Your task to perform on an android device: see creations saved in the google photos Image 0: 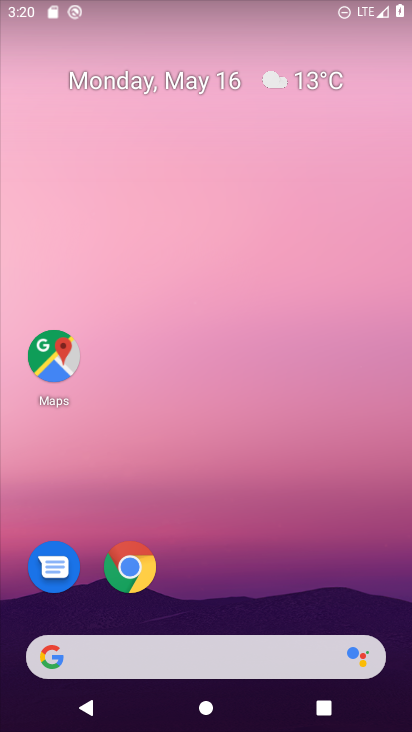
Step 0: drag from (295, 607) to (227, 12)
Your task to perform on an android device: see creations saved in the google photos Image 1: 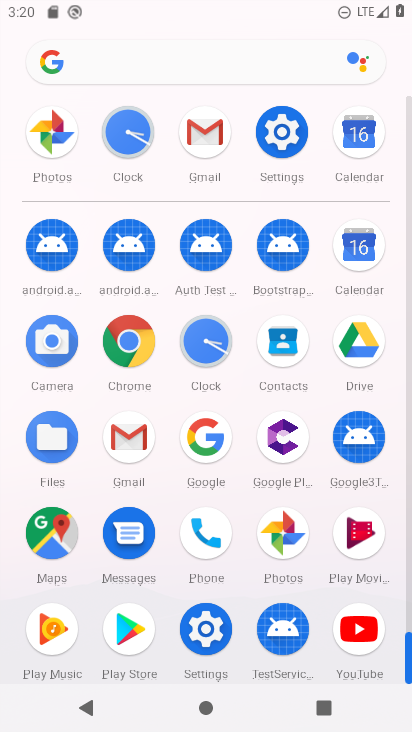
Step 1: click (34, 139)
Your task to perform on an android device: see creations saved in the google photos Image 2: 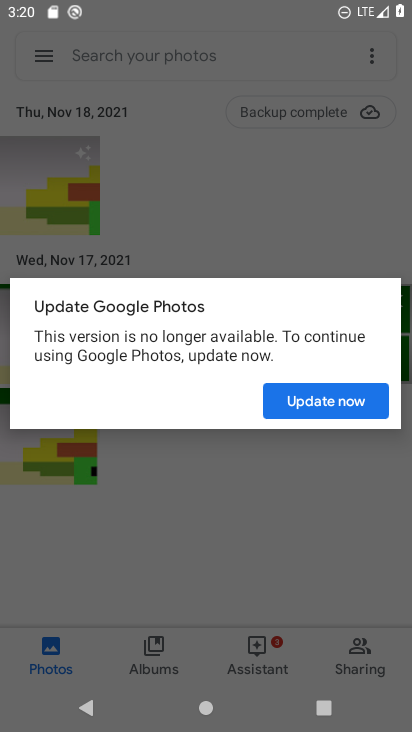
Step 2: click (297, 393)
Your task to perform on an android device: see creations saved in the google photos Image 3: 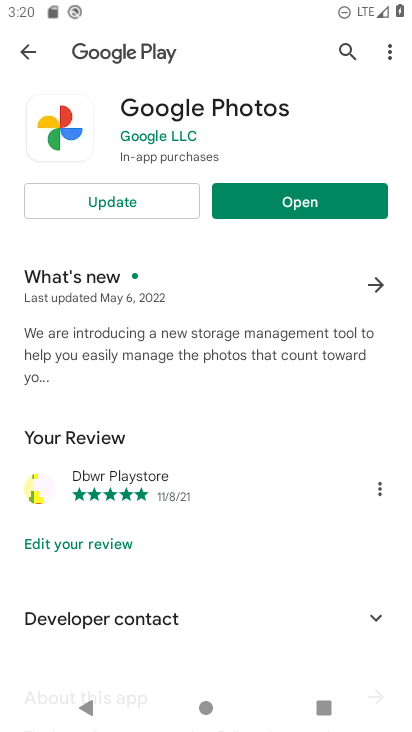
Step 3: click (297, 203)
Your task to perform on an android device: see creations saved in the google photos Image 4: 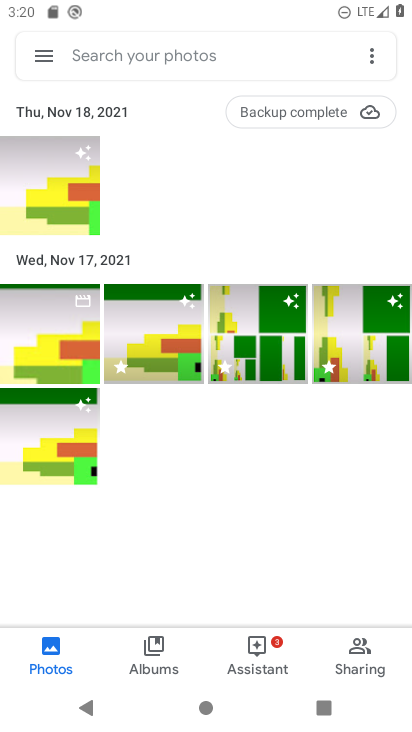
Step 4: click (159, 59)
Your task to perform on an android device: see creations saved in the google photos Image 5: 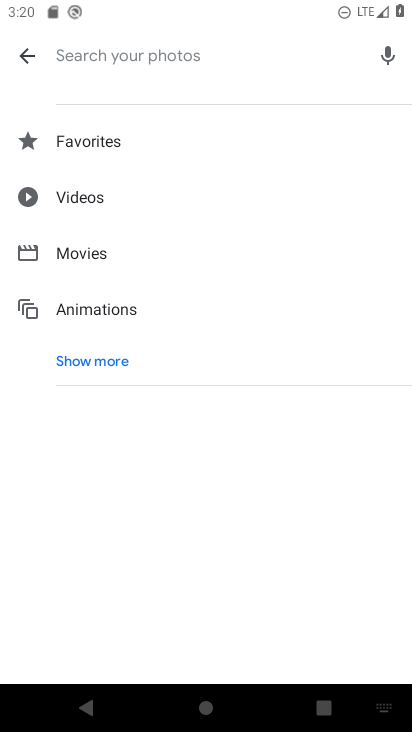
Step 5: click (110, 362)
Your task to perform on an android device: see creations saved in the google photos Image 6: 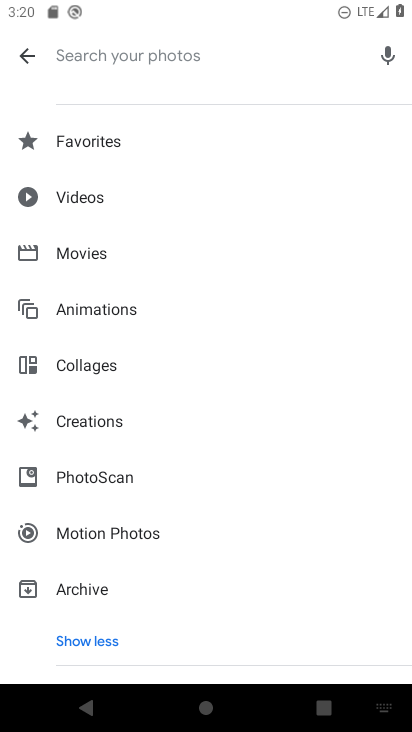
Step 6: click (110, 418)
Your task to perform on an android device: see creations saved in the google photos Image 7: 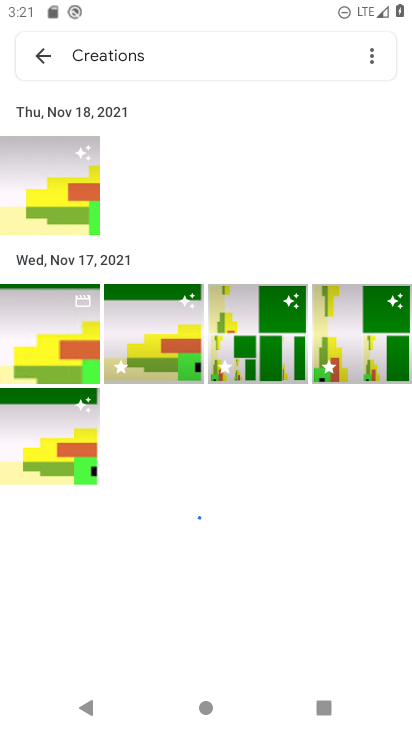
Step 7: task complete